Your task to perform on an android device: Show the shopping cart on walmart. Add "acer nitro" to the cart on walmart, then select checkout. Image 0: 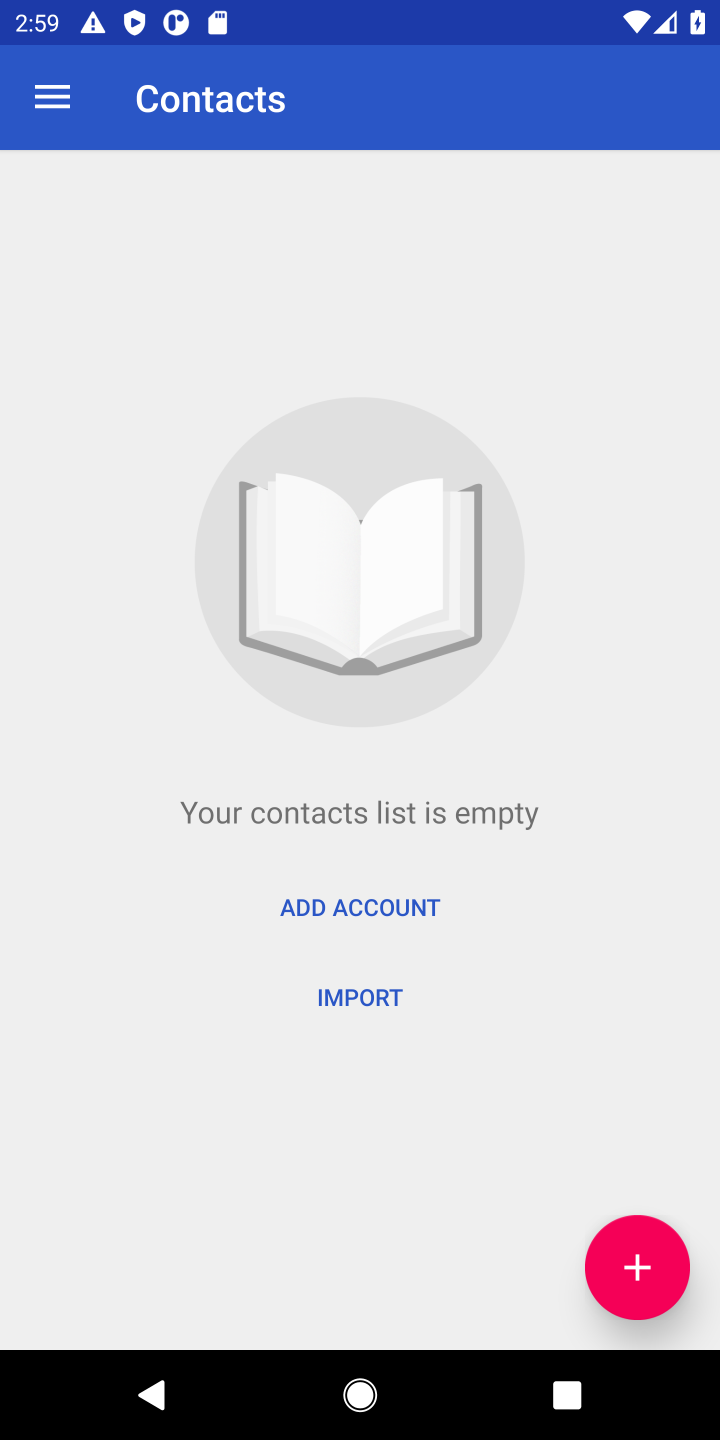
Step 0: press home button
Your task to perform on an android device: Show the shopping cart on walmart. Add "acer nitro" to the cart on walmart, then select checkout. Image 1: 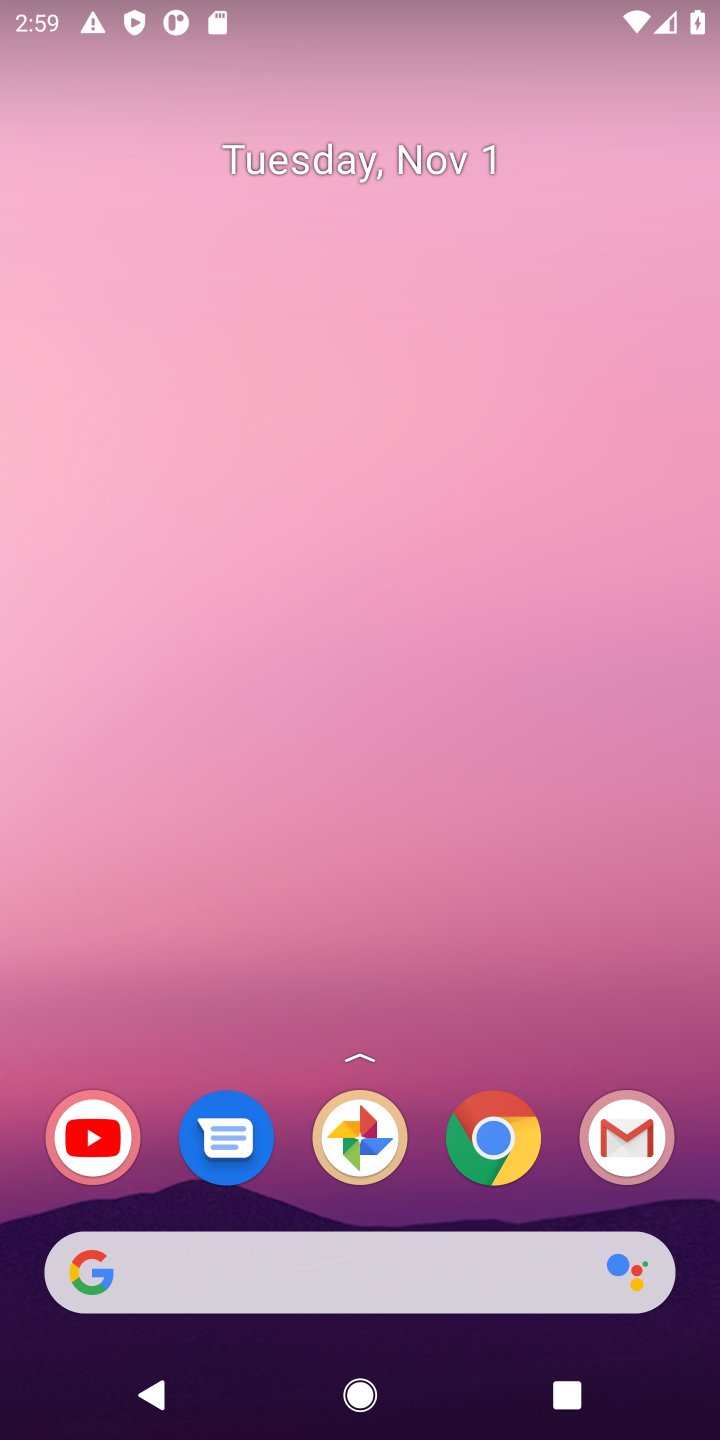
Step 1: click (479, 1136)
Your task to perform on an android device: Show the shopping cart on walmart. Add "acer nitro" to the cart on walmart, then select checkout. Image 2: 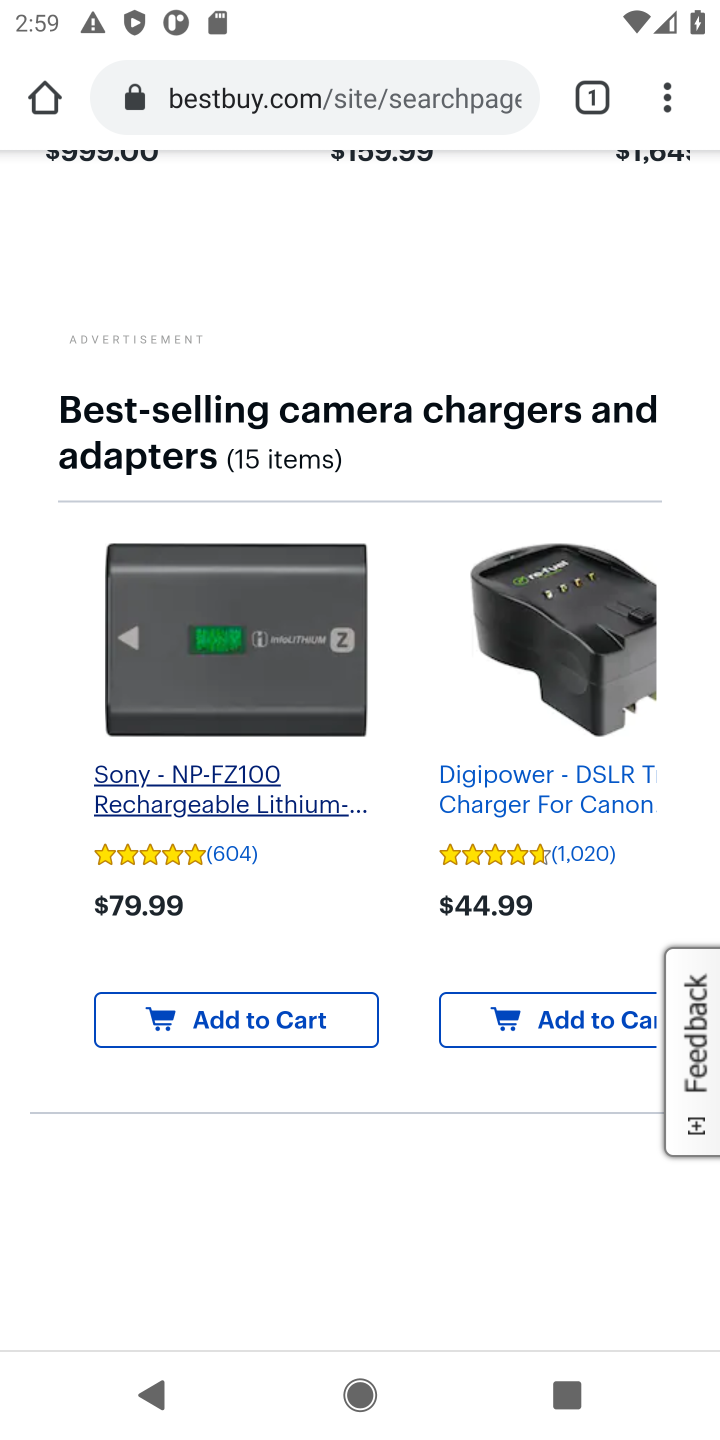
Step 2: click (370, 92)
Your task to perform on an android device: Show the shopping cart on walmart. Add "acer nitro" to the cart on walmart, then select checkout. Image 3: 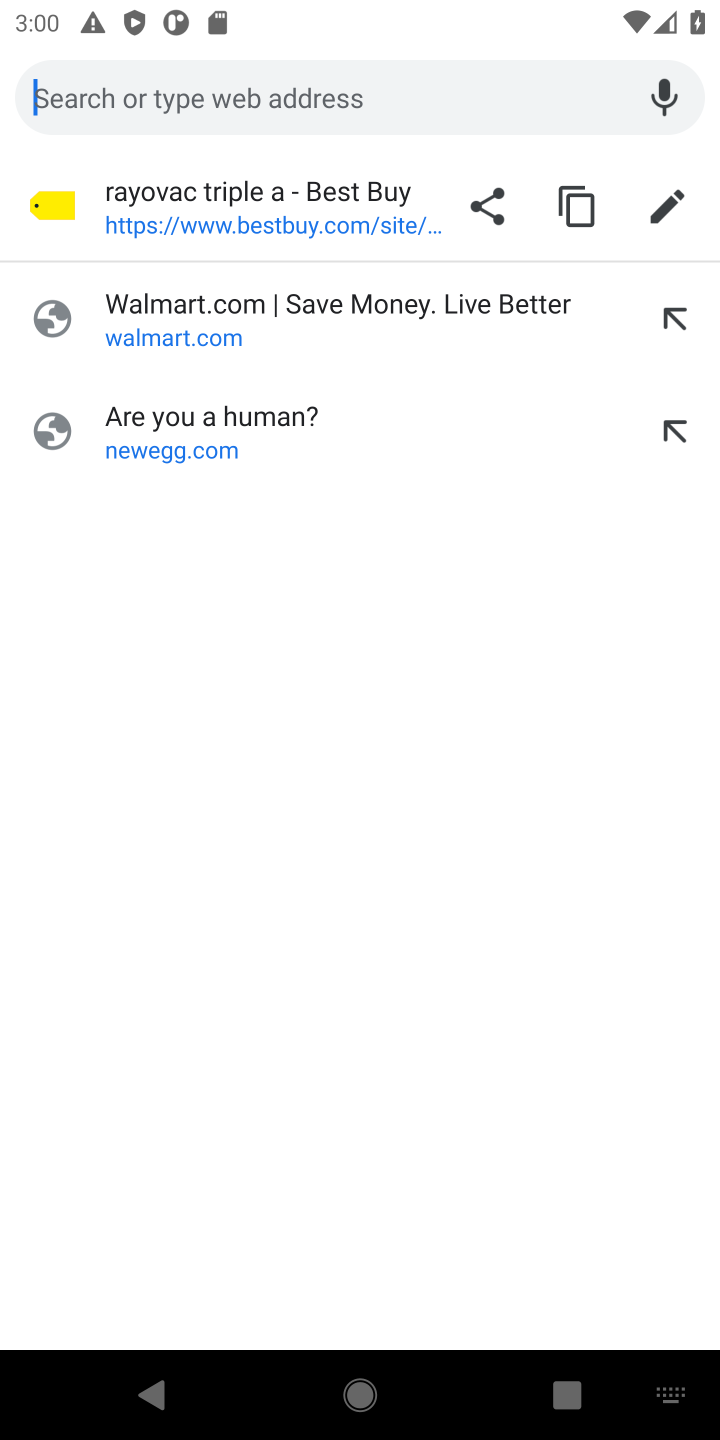
Step 3: click (319, 78)
Your task to perform on an android device: Show the shopping cart on walmart. Add "acer nitro" to the cart on walmart, then select checkout. Image 4: 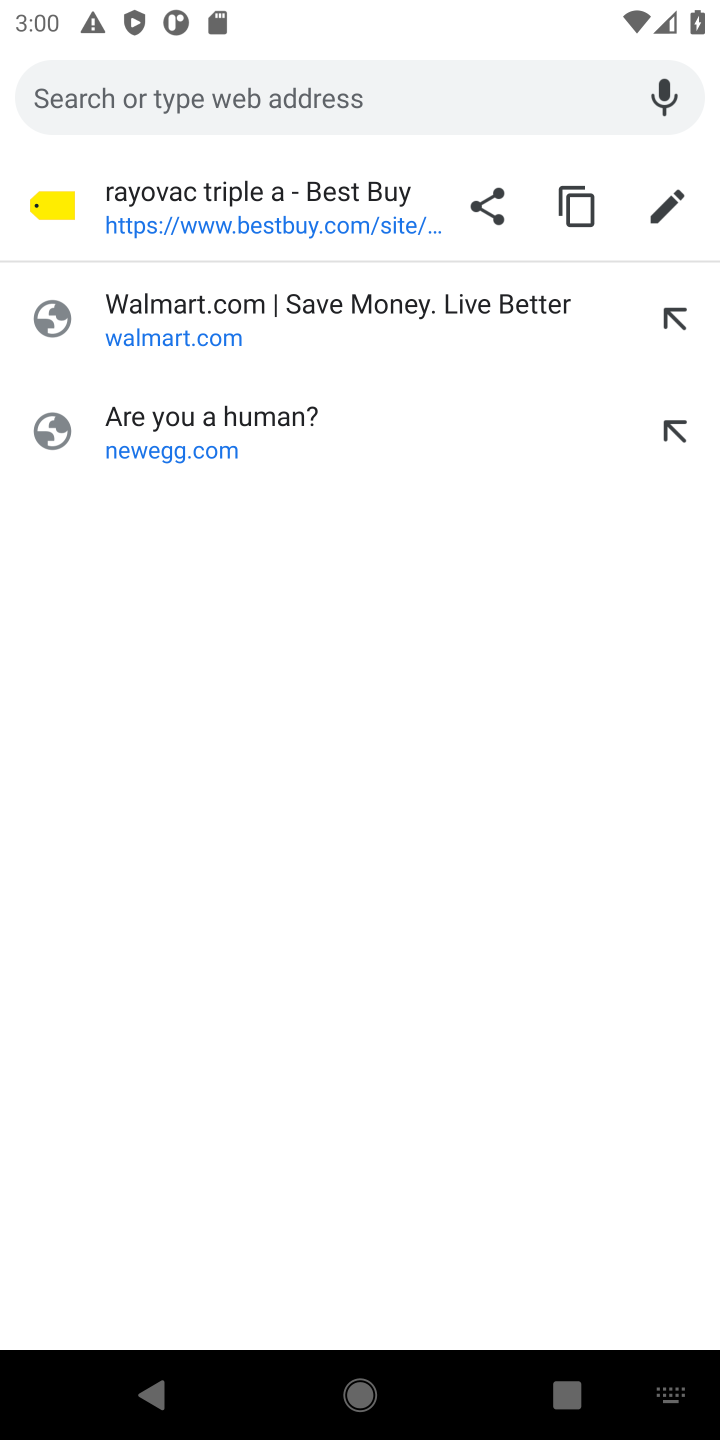
Step 4: type "walmart"
Your task to perform on an android device: Show the shopping cart on walmart. Add "acer nitro" to the cart on walmart, then select checkout. Image 5: 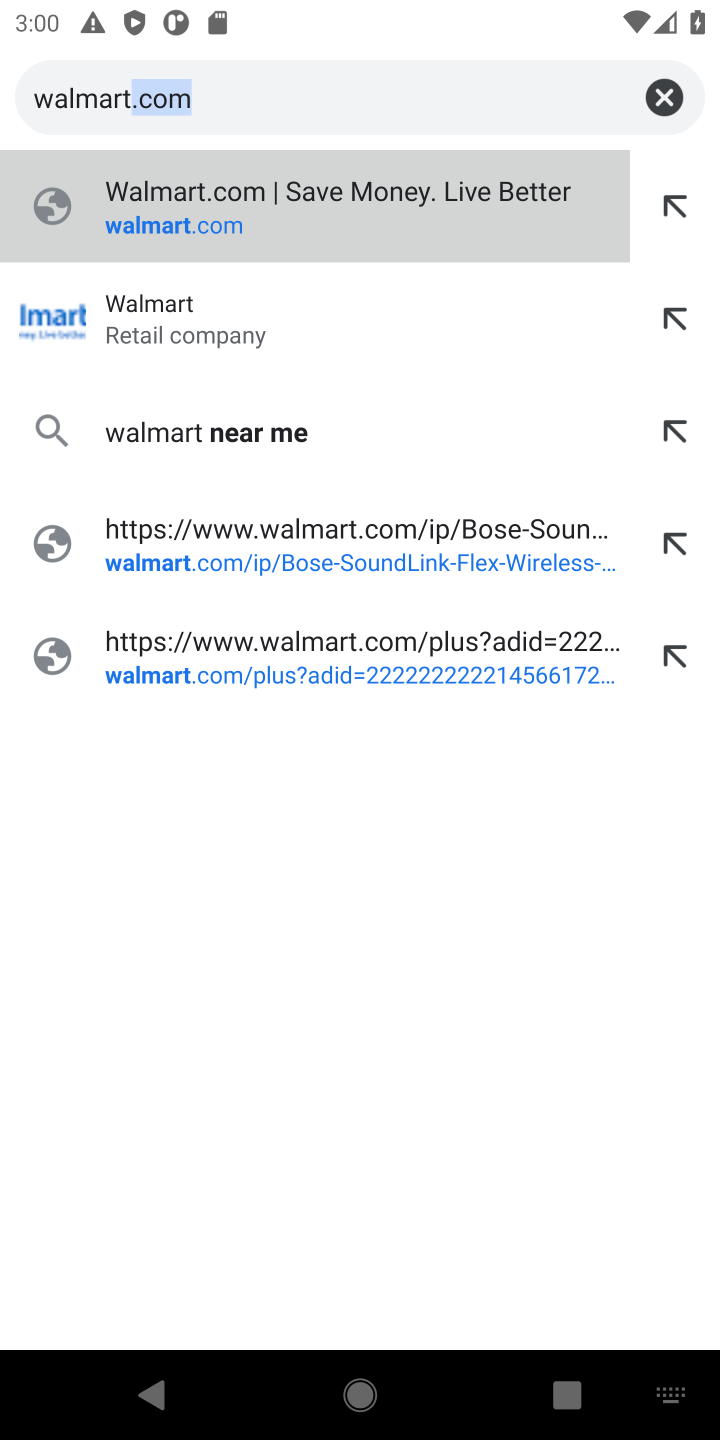
Step 5: click (260, 191)
Your task to perform on an android device: Show the shopping cart on walmart. Add "acer nitro" to the cart on walmart, then select checkout. Image 6: 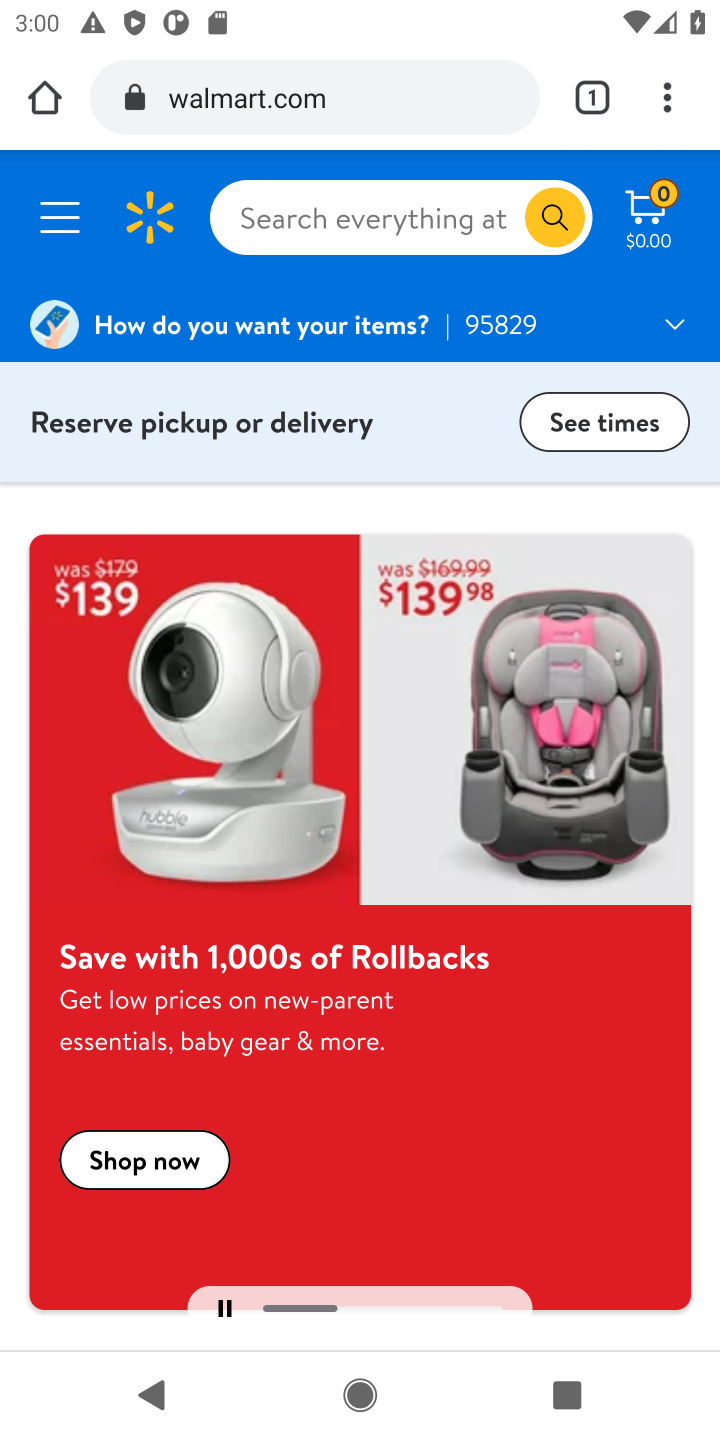
Step 6: click (333, 221)
Your task to perform on an android device: Show the shopping cart on walmart. Add "acer nitro" to the cart on walmart, then select checkout. Image 7: 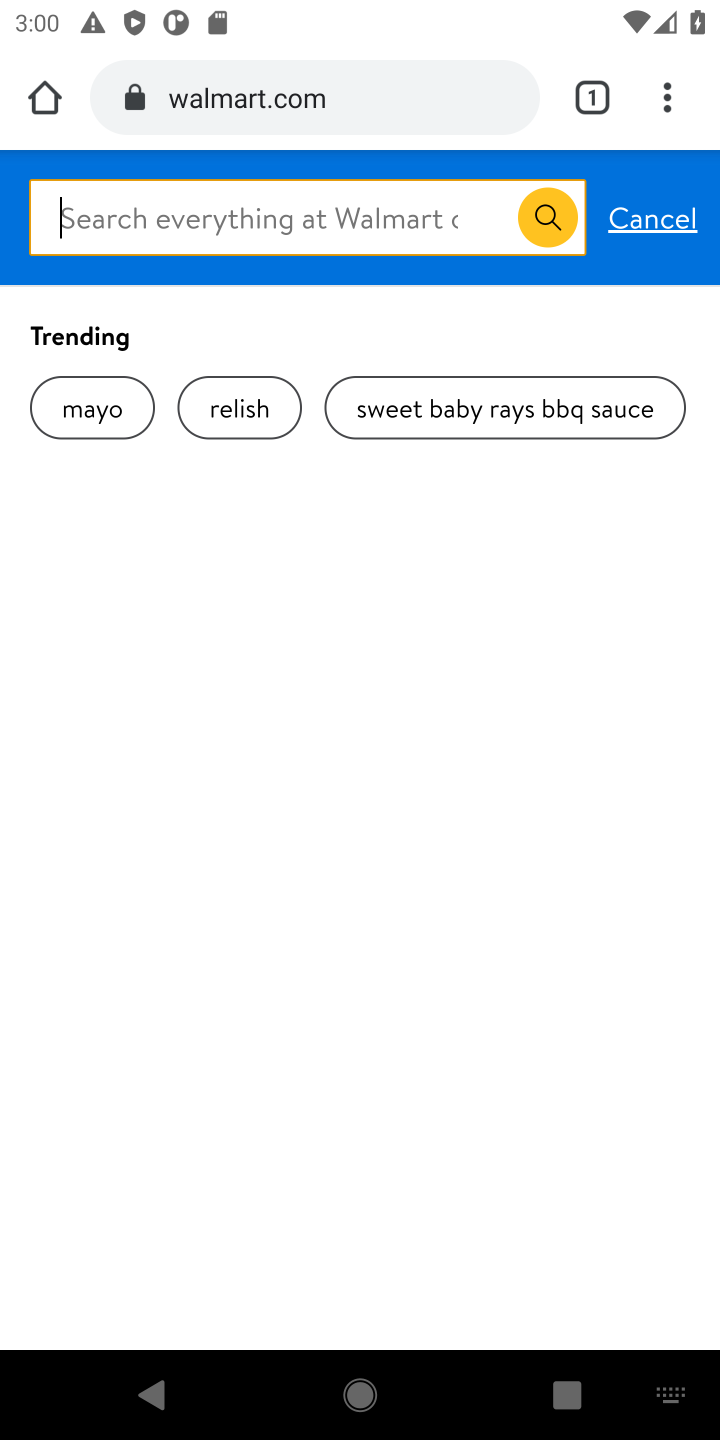
Step 7: type "acer nitro"
Your task to perform on an android device: Show the shopping cart on walmart. Add "acer nitro" to the cart on walmart, then select checkout. Image 8: 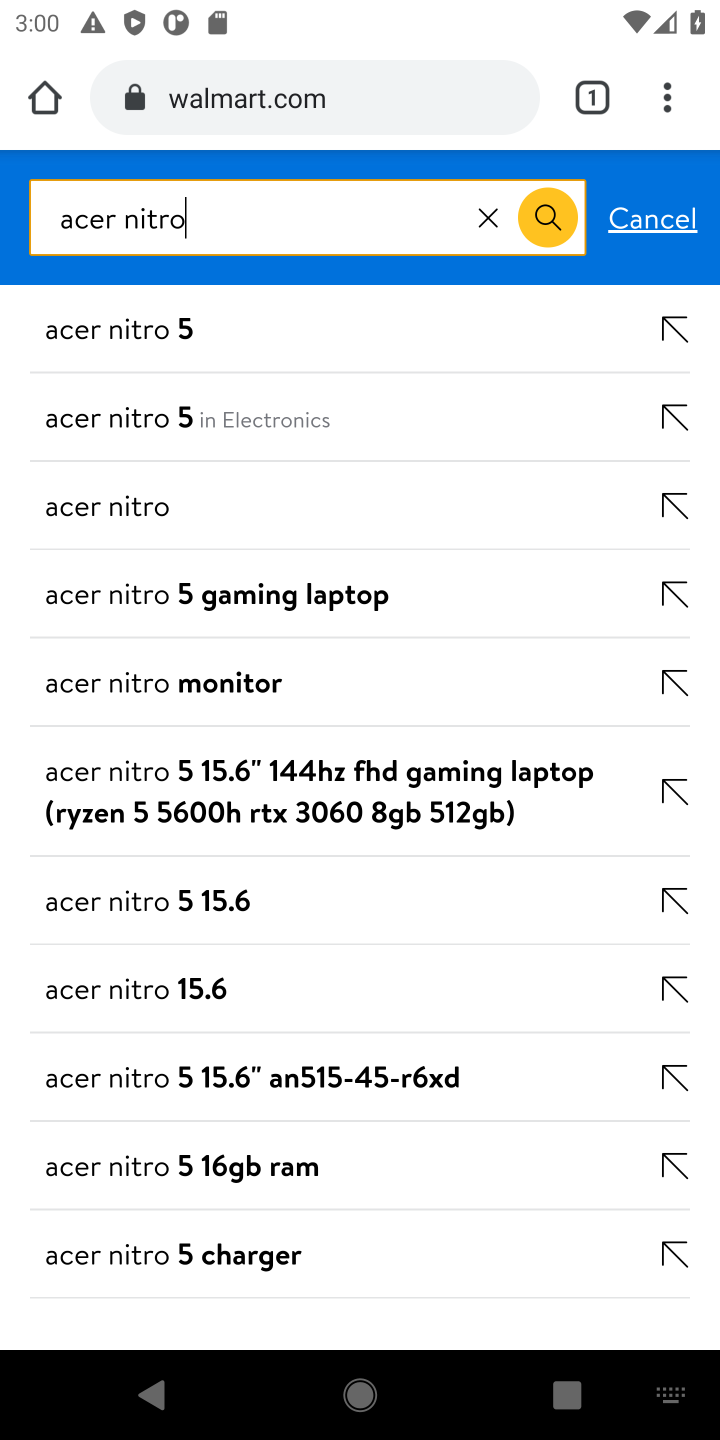
Step 8: click (557, 214)
Your task to perform on an android device: Show the shopping cart on walmart. Add "acer nitro" to the cart on walmart, then select checkout. Image 9: 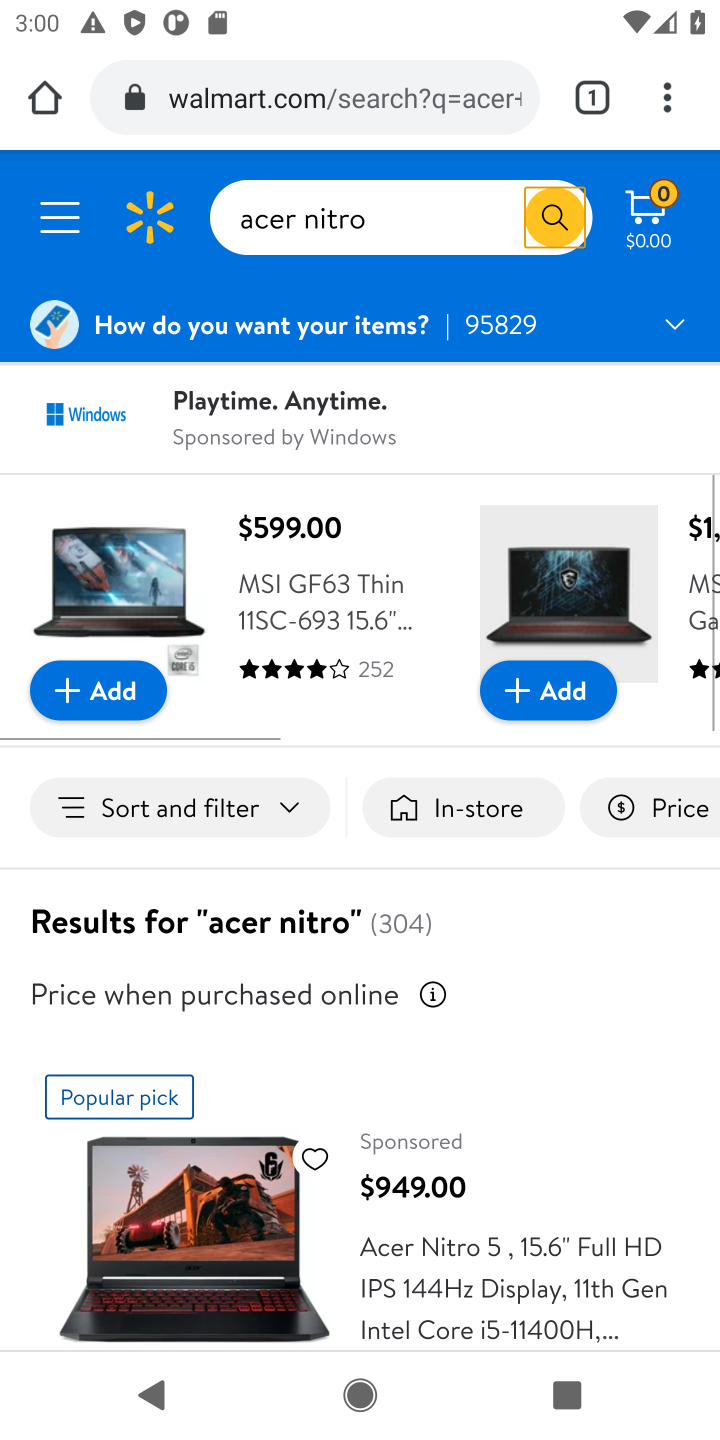
Step 9: drag from (456, 1185) to (426, 865)
Your task to perform on an android device: Show the shopping cart on walmart. Add "acer nitro" to the cart on walmart, then select checkout. Image 10: 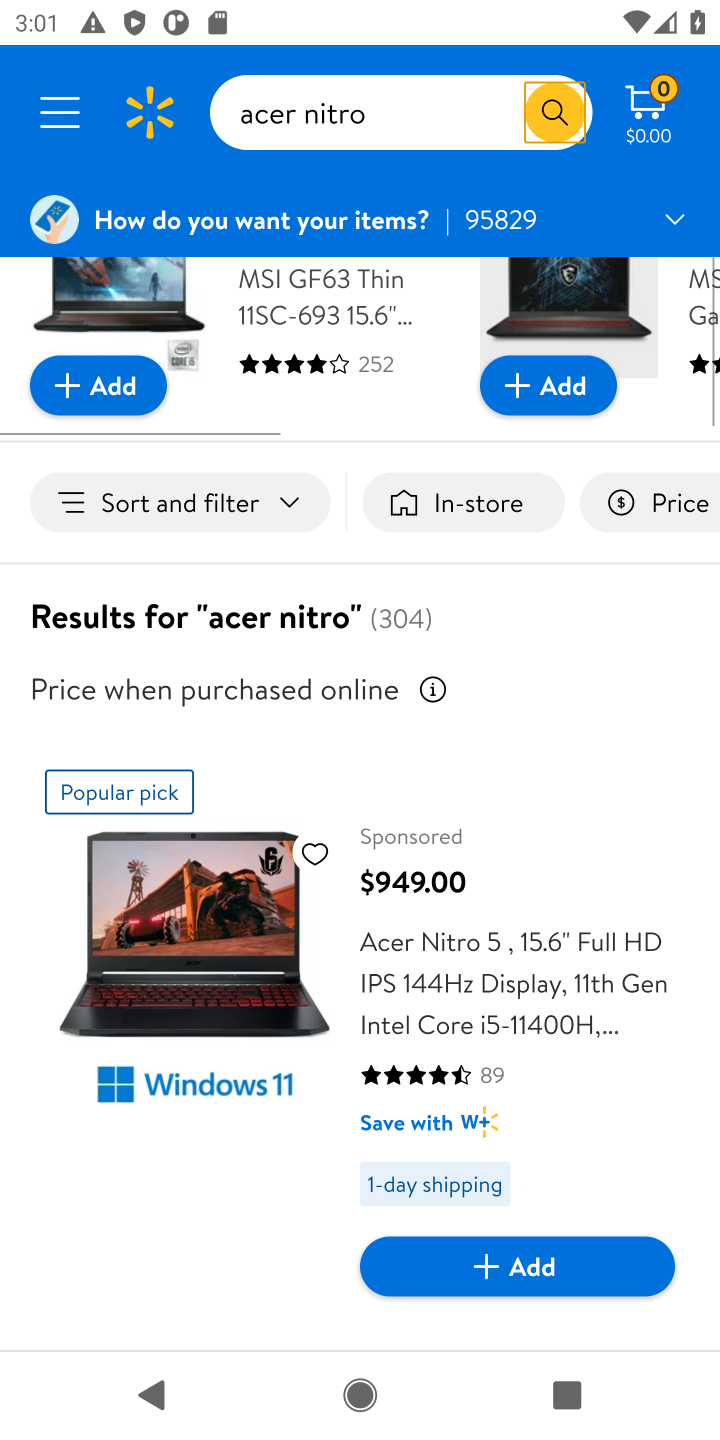
Step 10: click (541, 1267)
Your task to perform on an android device: Show the shopping cart on walmart. Add "acer nitro" to the cart on walmart, then select checkout. Image 11: 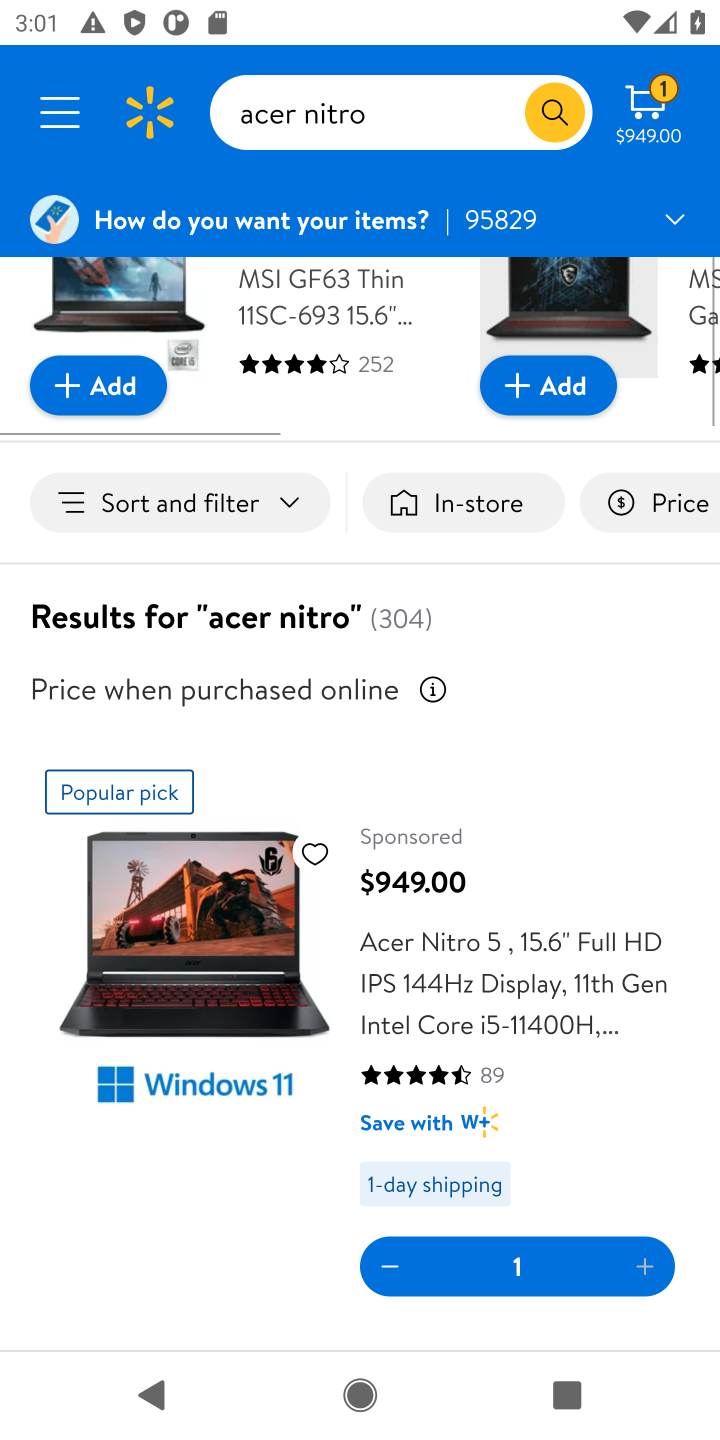
Step 11: task complete